Your task to perform on an android device: Search for seafood restaurants on Google Maps Image 0: 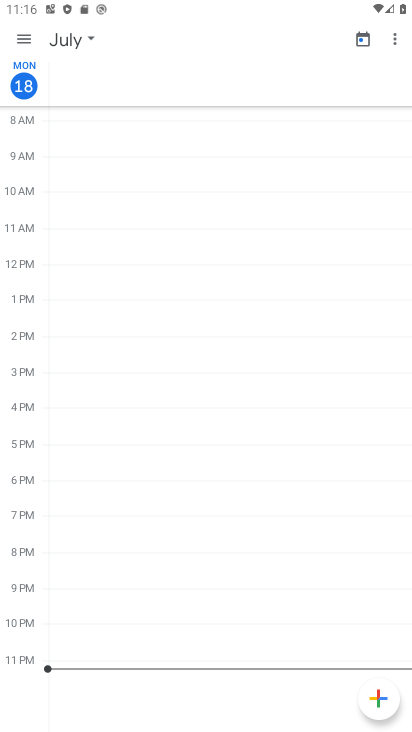
Step 0: press home button
Your task to perform on an android device: Search for seafood restaurants on Google Maps Image 1: 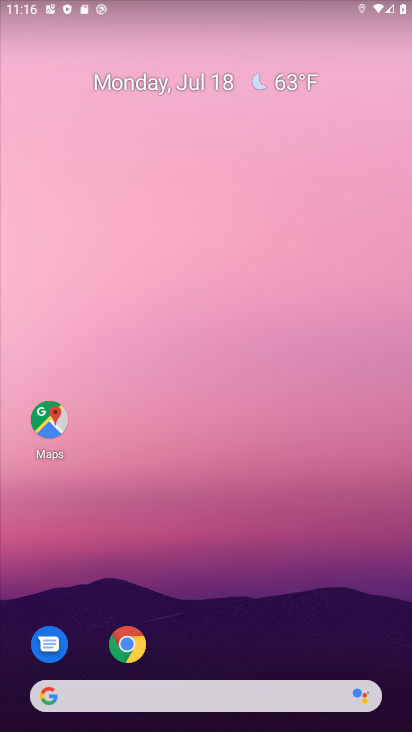
Step 1: drag from (225, 727) to (244, 153)
Your task to perform on an android device: Search for seafood restaurants on Google Maps Image 2: 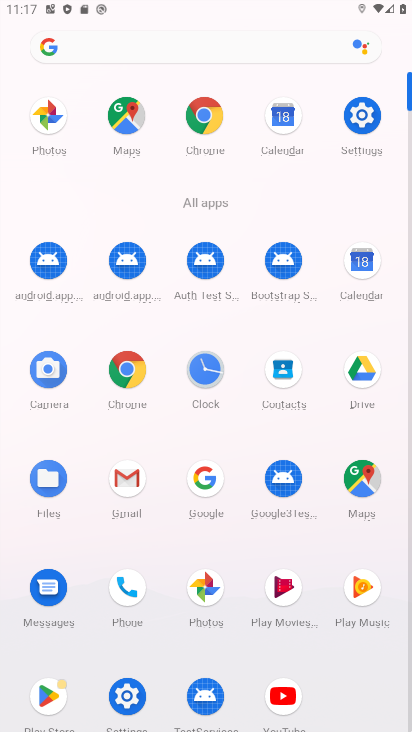
Step 2: click (373, 478)
Your task to perform on an android device: Search for seafood restaurants on Google Maps Image 3: 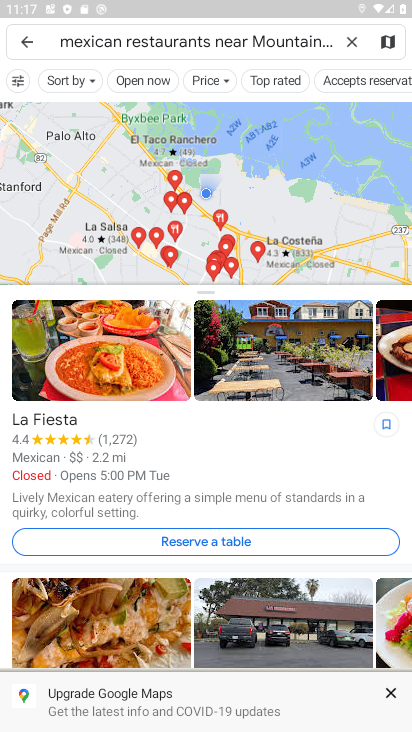
Step 3: click (352, 37)
Your task to perform on an android device: Search for seafood restaurants on Google Maps Image 4: 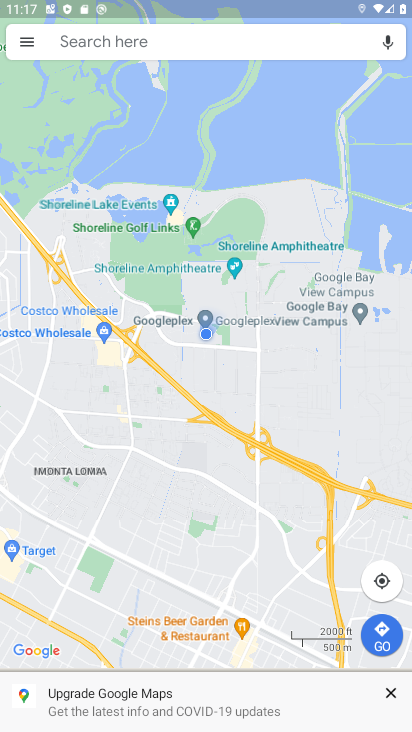
Step 4: click (204, 33)
Your task to perform on an android device: Search for seafood restaurants on Google Maps Image 5: 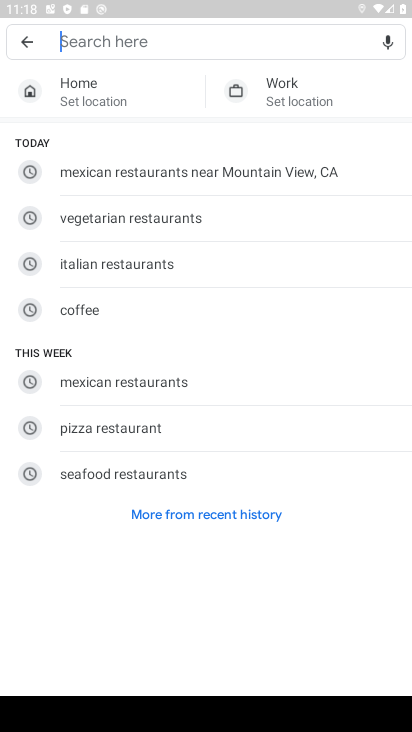
Step 5: type "seafood restaurants"
Your task to perform on an android device: Search for seafood restaurants on Google Maps Image 6: 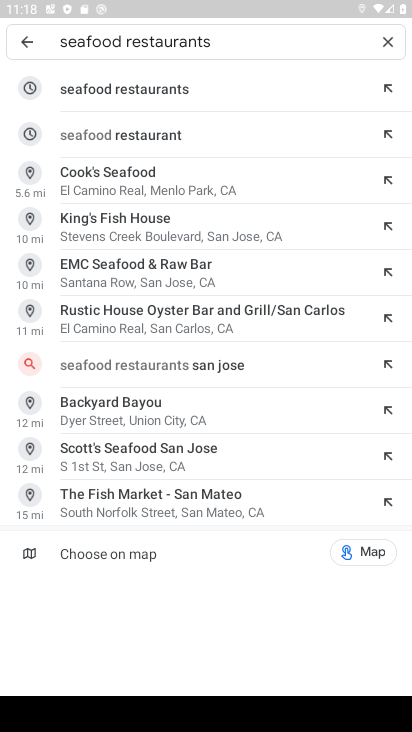
Step 6: click (123, 86)
Your task to perform on an android device: Search for seafood restaurants on Google Maps Image 7: 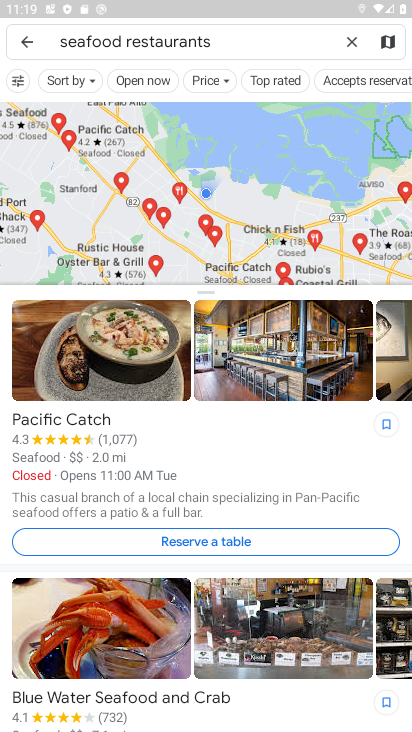
Step 7: task complete